Your task to perform on an android device: Open internet settings Image 0: 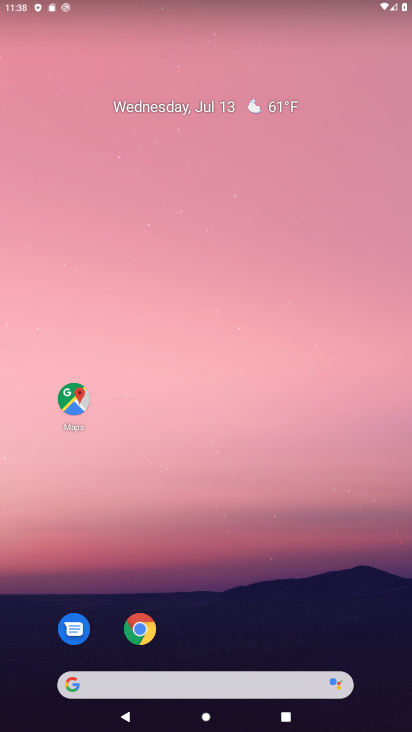
Step 0: drag from (194, 640) to (156, 244)
Your task to perform on an android device: Open internet settings Image 1: 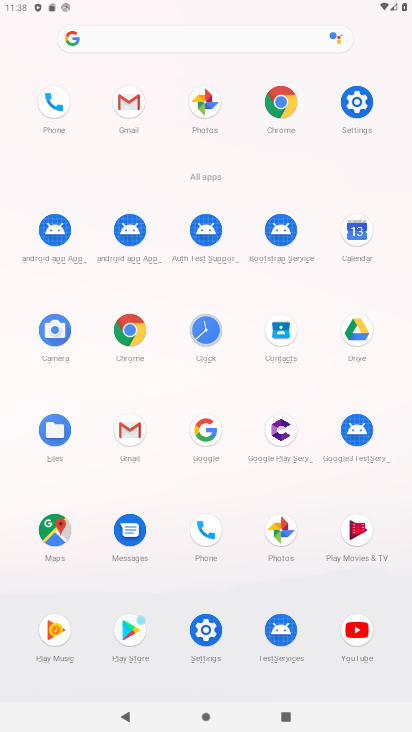
Step 1: click (362, 110)
Your task to perform on an android device: Open internet settings Image 2: 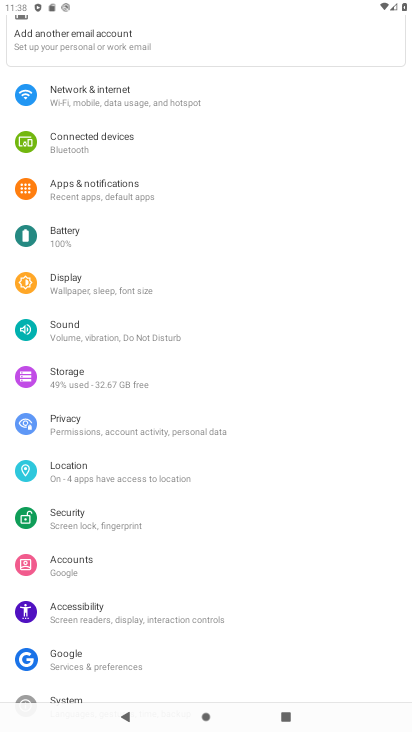
Step 2: click (152, 90)
Your task to perform on an android device: Open internet settings Image 3: 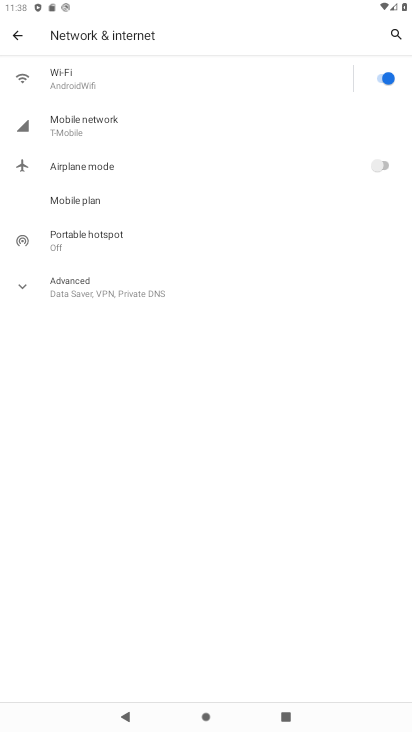
Step 3: click (57, 139)
Your task to perform on an android device: Open internet settings Image 4: 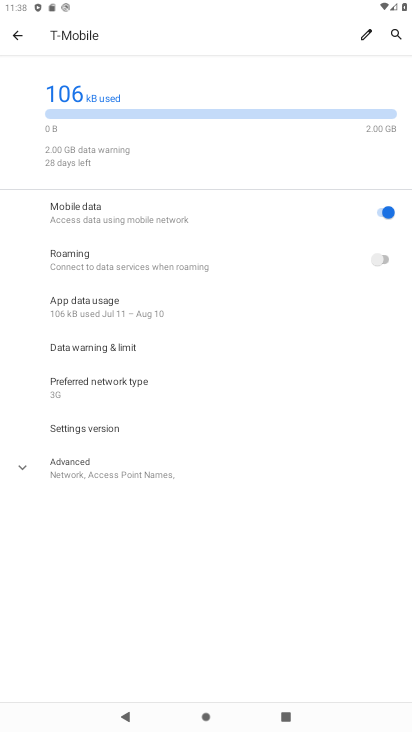
Step 4: task complete